Your task to perform on an android device: Open Google Image 0: 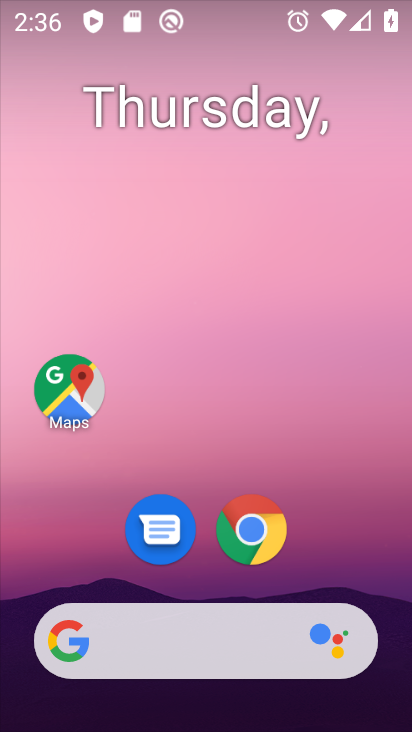
Step 0: drag from (232, 632) to (260, 21)
Your task to perform on an android device: Open Google Image 1: 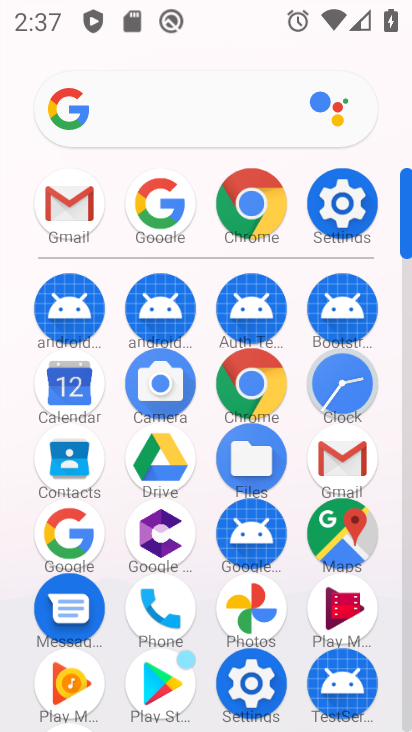
Step 1: click (165, 214)
Your task to perform on an android device: Open Google Image 2: 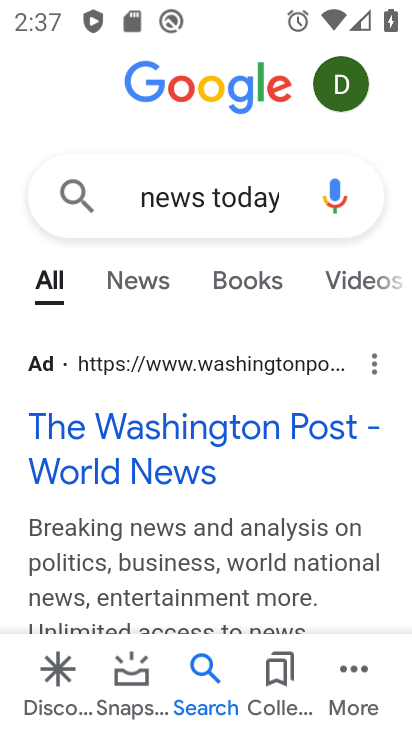
Step 2: task complete